Your task to perform on an android device: turn on location history Image 0: 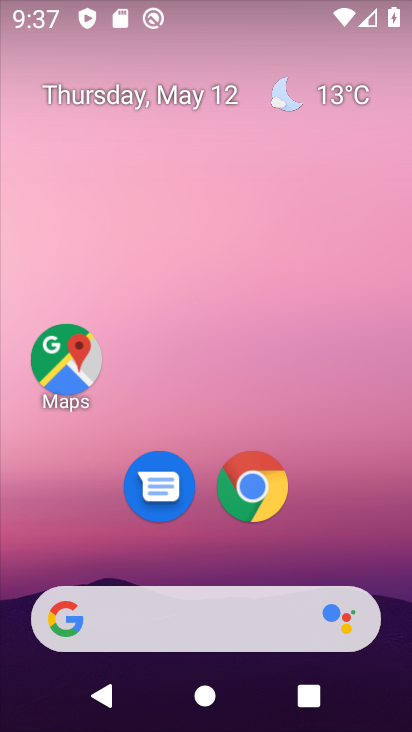
Step 0: drag from (358, 502) to (290, 219)
Your task to perform on an android device: turn on location history Image 1: 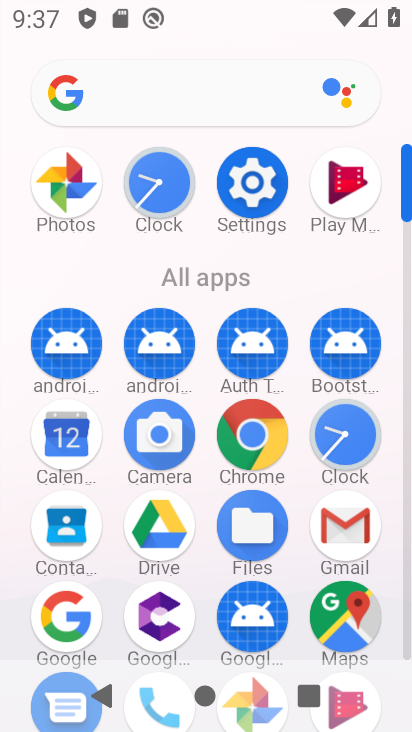
Step 1: click (267, 191)
Your task to perform on an android device: turn on location history Image 2: 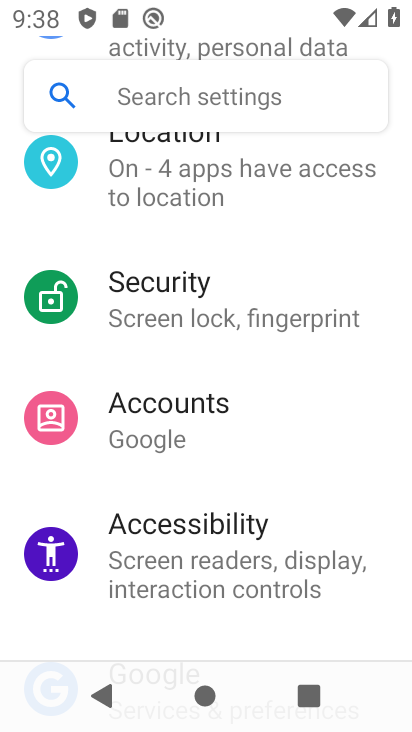
Step 2: click (202, 158)
Your task to perform on an android device: turn on location history Image 3: 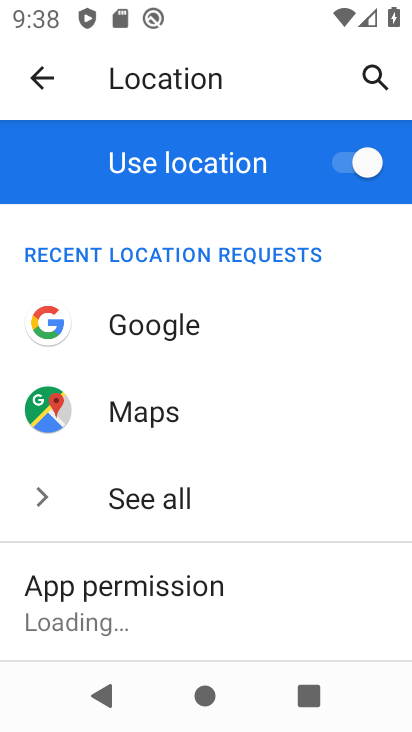
Step 3: drag from (246, 535) to (203, 175)
Your task to perform on an android device: turn on location history Image 4: 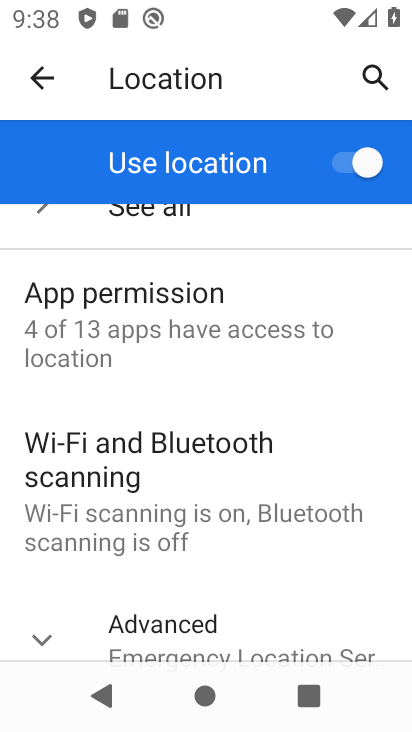
Step 4: click (217, 630)
Your task to perform on an android device: turn on location history Image 5: 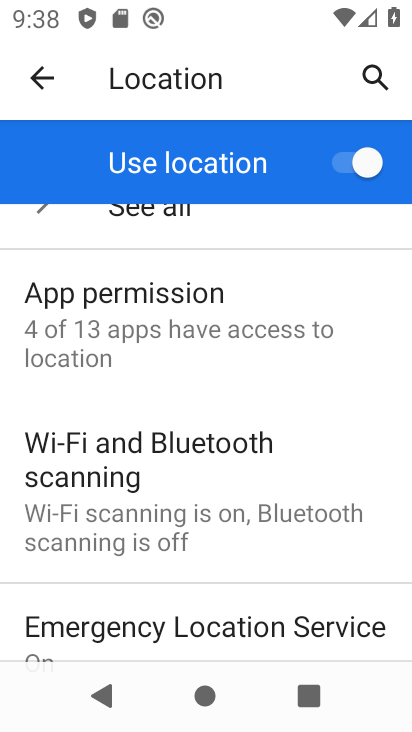
Step 5: drag from (276, 520) to (208, 144)
Your task to perform on an android device: turn on location history Image 6: 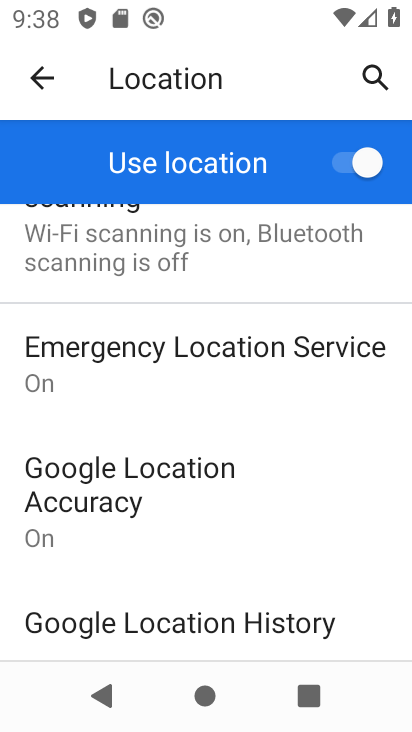
Step 6: click (275, 621)
Your task to perform on an android device: turn on location history Image 7: 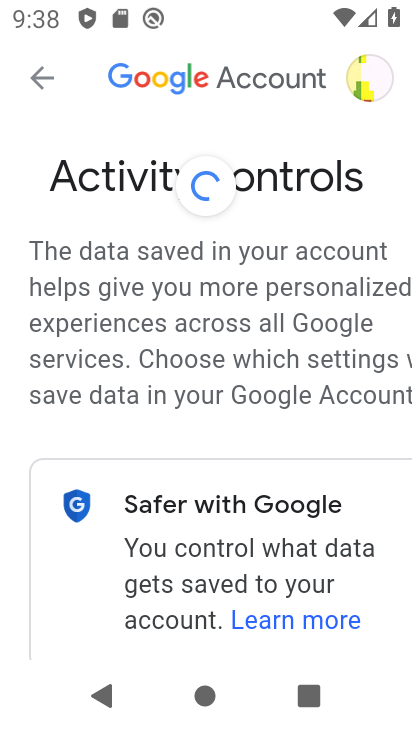
Step 7: drag from (307, 486) to (267, 168)
Your task to perform on an android device: turn on location history Image 8: 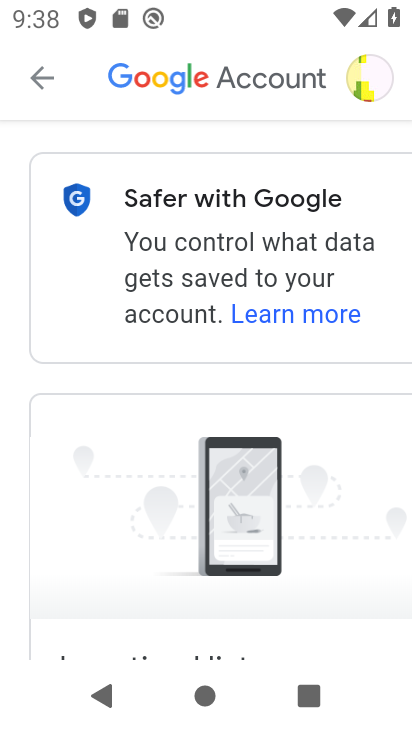
Step 8: drag from (301, 477) to (259, 158)
Your task to perform on an android device: turn on location history Image 9: 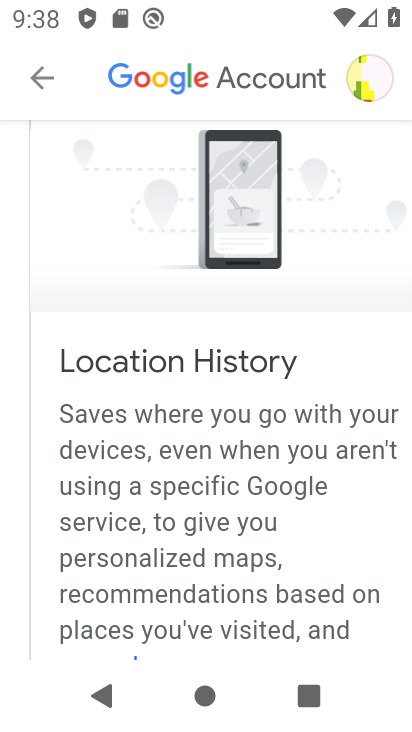
Step 9: drag from (348, 508) to (294, 231)
Your task to perform on an android device: turn on location history Image 10: 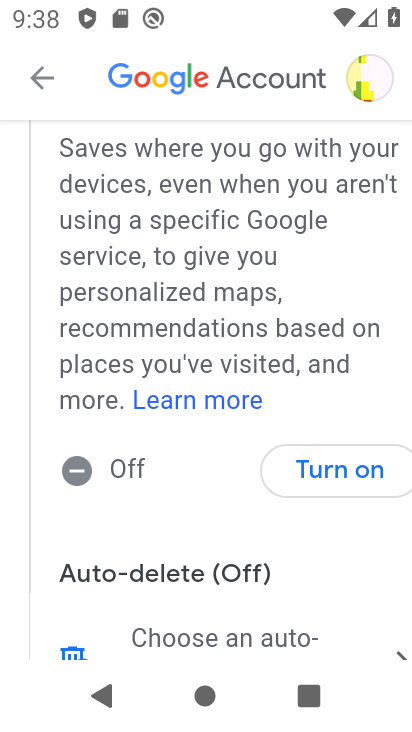
Step 10: click (378, 465)
Your task to perform on an android device: turn on location history Image 11: 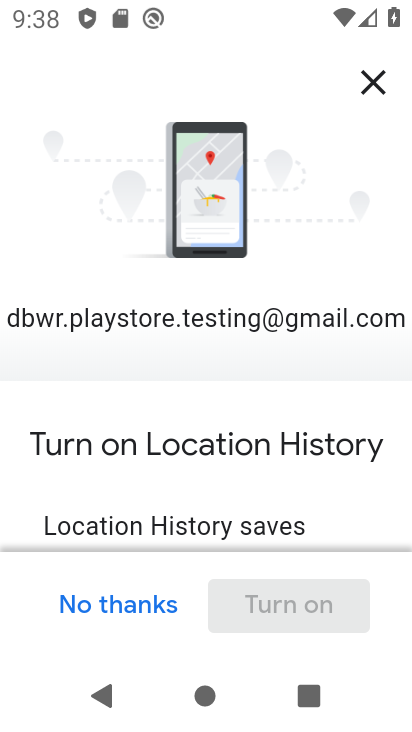
Step 11: drag from (282, 468) to (222, 6)
Your task to perform on an android device: turn on location history Image 12: 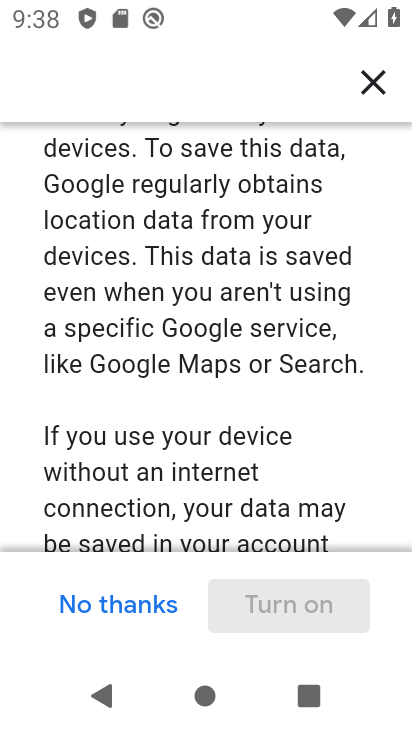
Step 12: drag from (314, 477) to (229, 144)
Your task to perform on an android device: turn on location history Image 13: 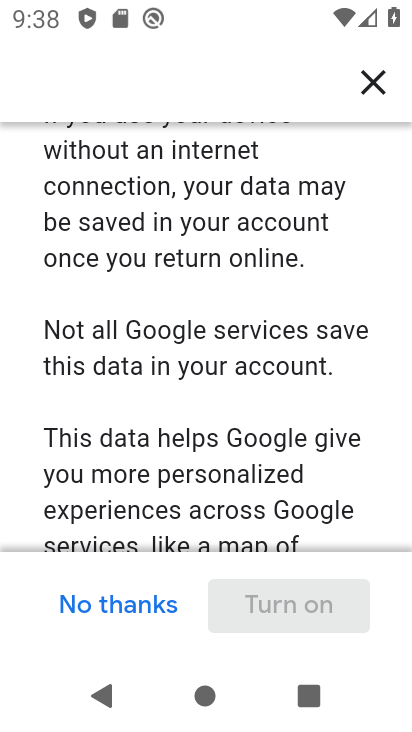
Step 13: drag from (302, 407) to (231, 109)
Your task to perform on an android device: turn on location history Image 14: 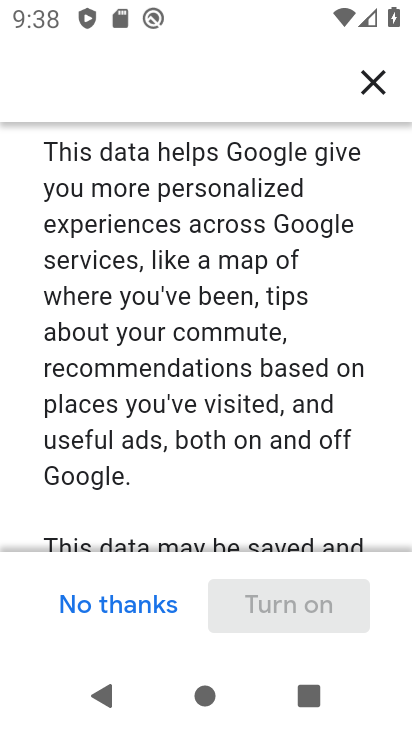
Step 14: drag from (324, 491) to (266, 158)
Your task to perform on an android device: turn on location history Image 15: 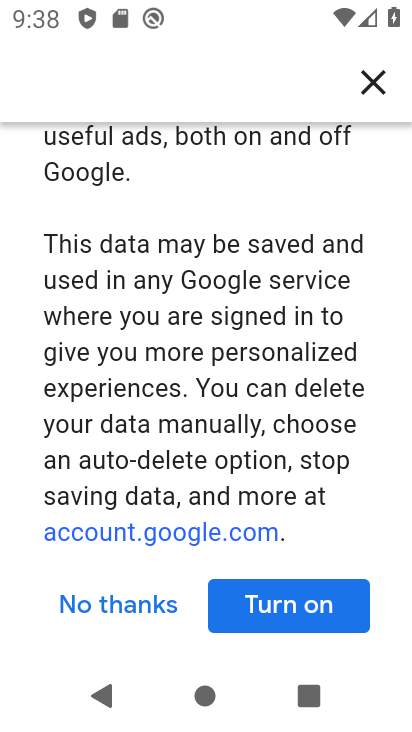
Step 15: click (306, 611)
Your task to perform on an android device: turn on location history Image 16: 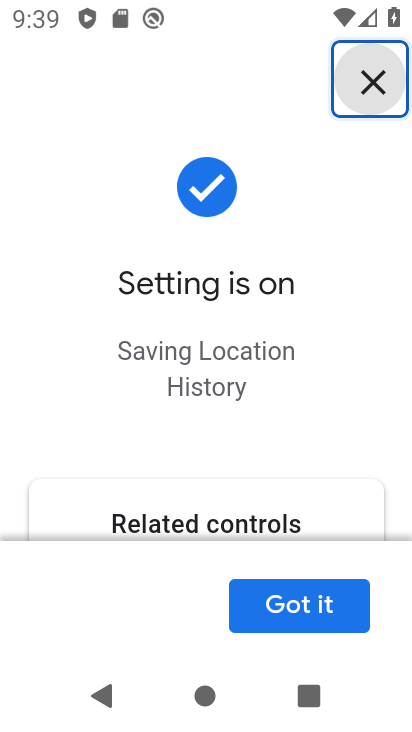
Step 16: click (306, 598)
Your task to perform on an android device: turn on location history Image 17: 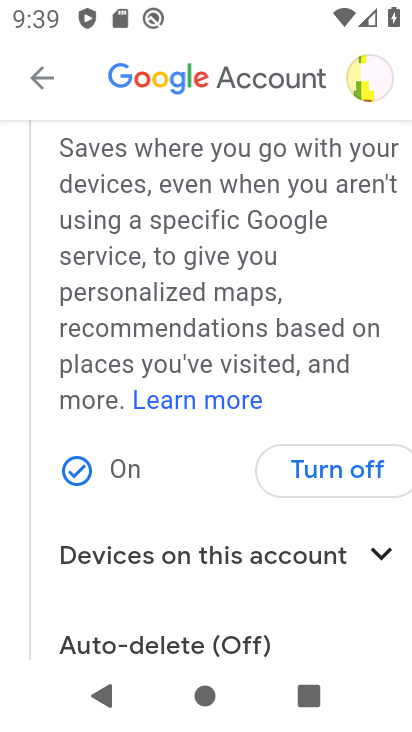
Step 17: task complete